Your task to perform on an android device: When is my next appointment? Image 0: 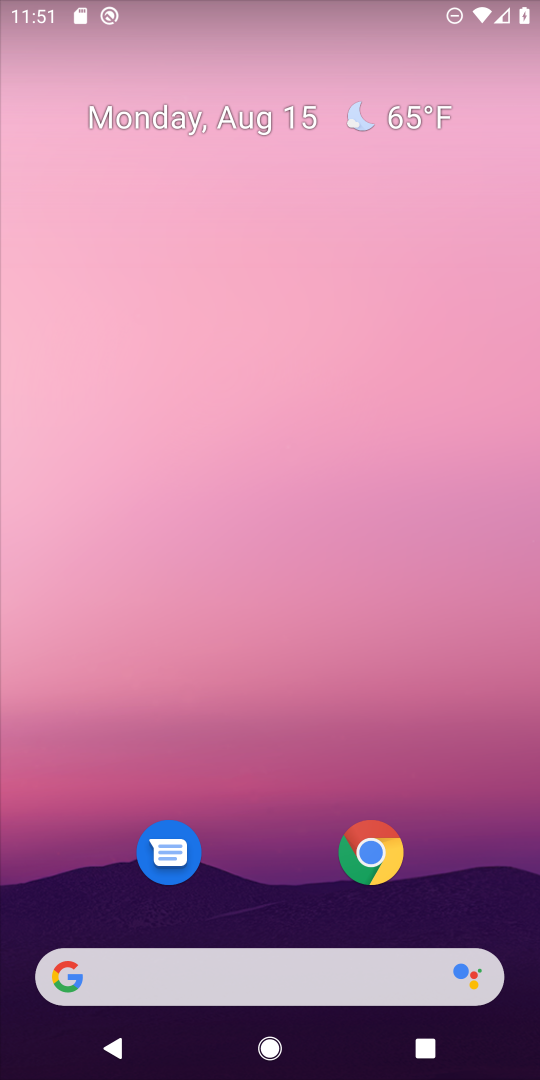
Step 0: drag from (311, 465) to (394, 6)
Your task to perform on an android device: When is my next appointment? Image 1: 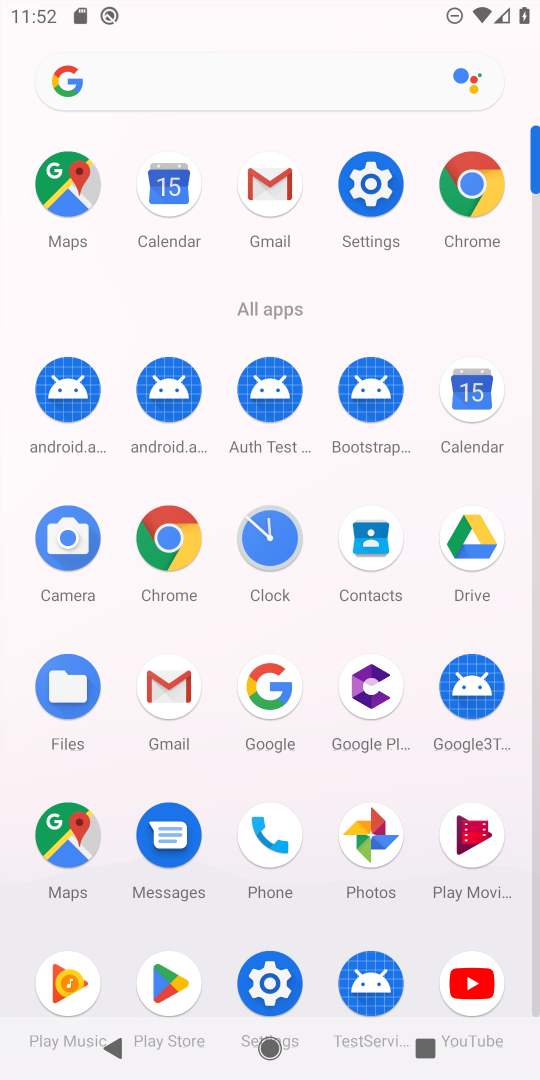
Step 1: click (459, 404)
Your task to perform on an android device: When is my next appointment? Image 2: 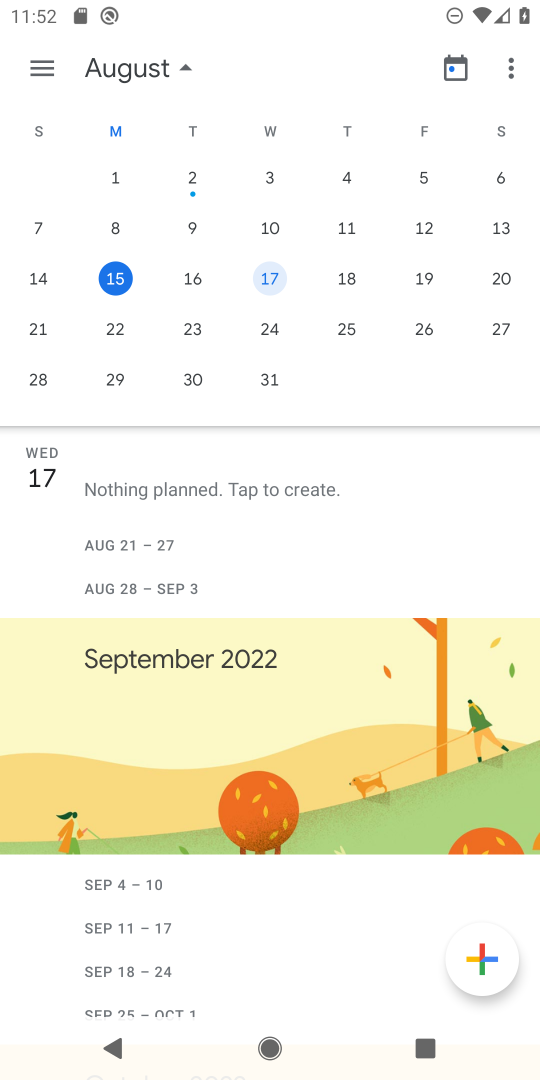
Step 2: task complete